Your task to perform on an android device: turn off sleep mode Image 0: 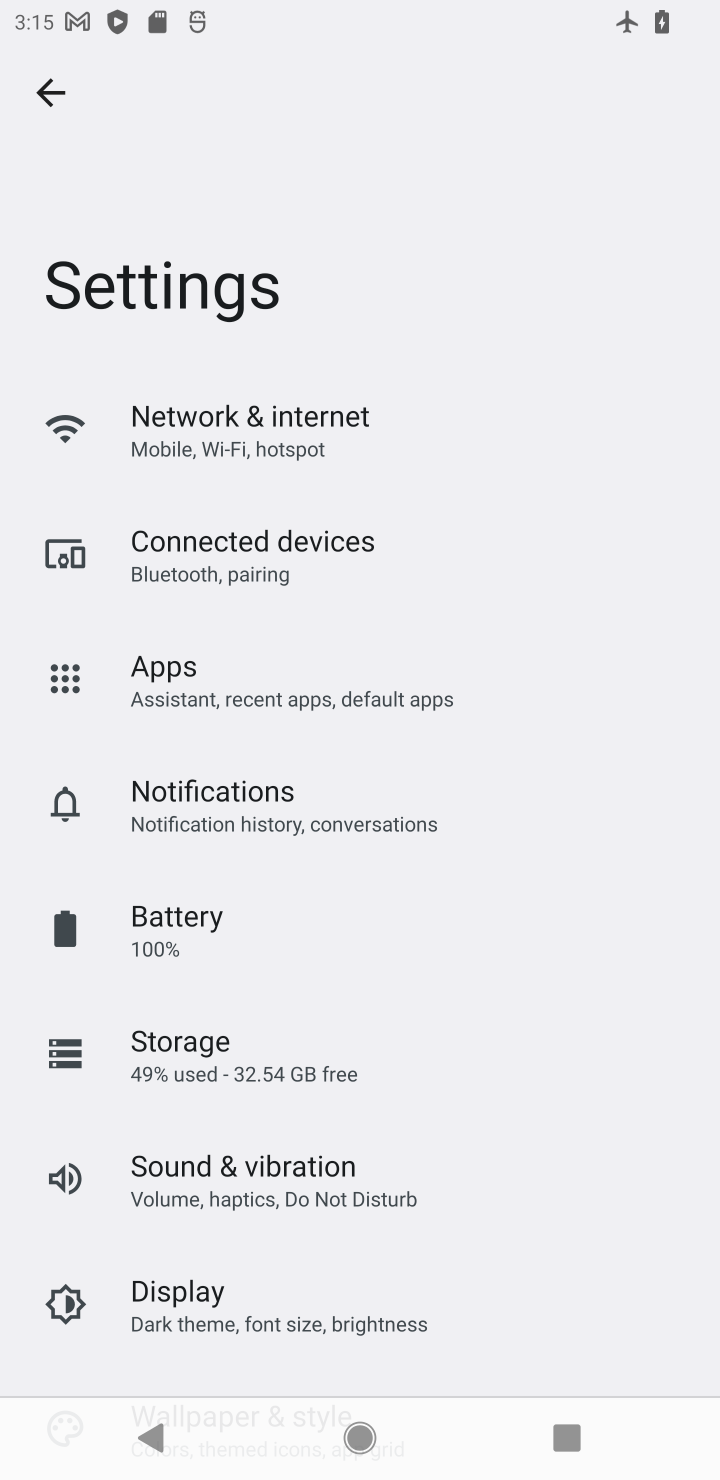
Step 0: drag from (486, 1184) to (634, 226)
Your task to perform on an android device: turn off sleep mode Image 1: 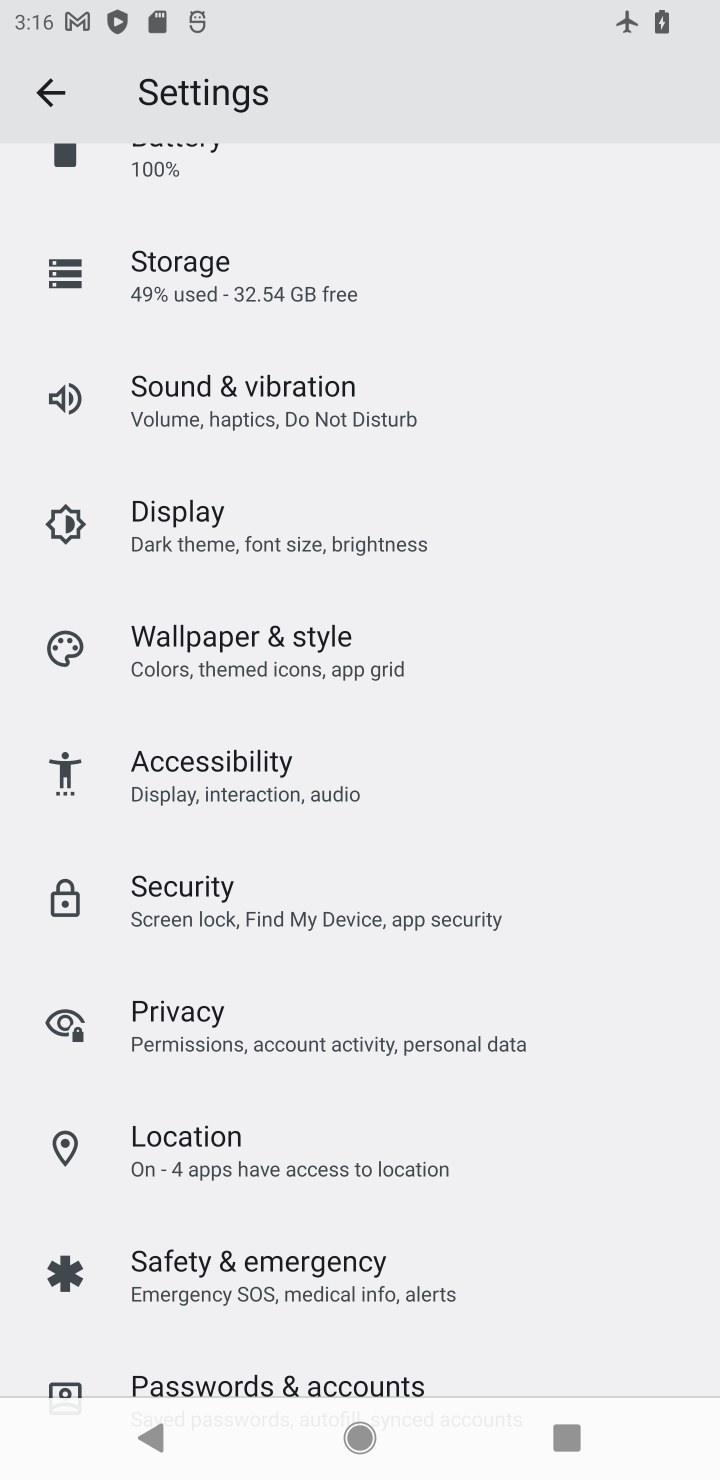
Step 1: click (435, 392)
Your task to perform on an android device: turn off sleep mode Image 2: 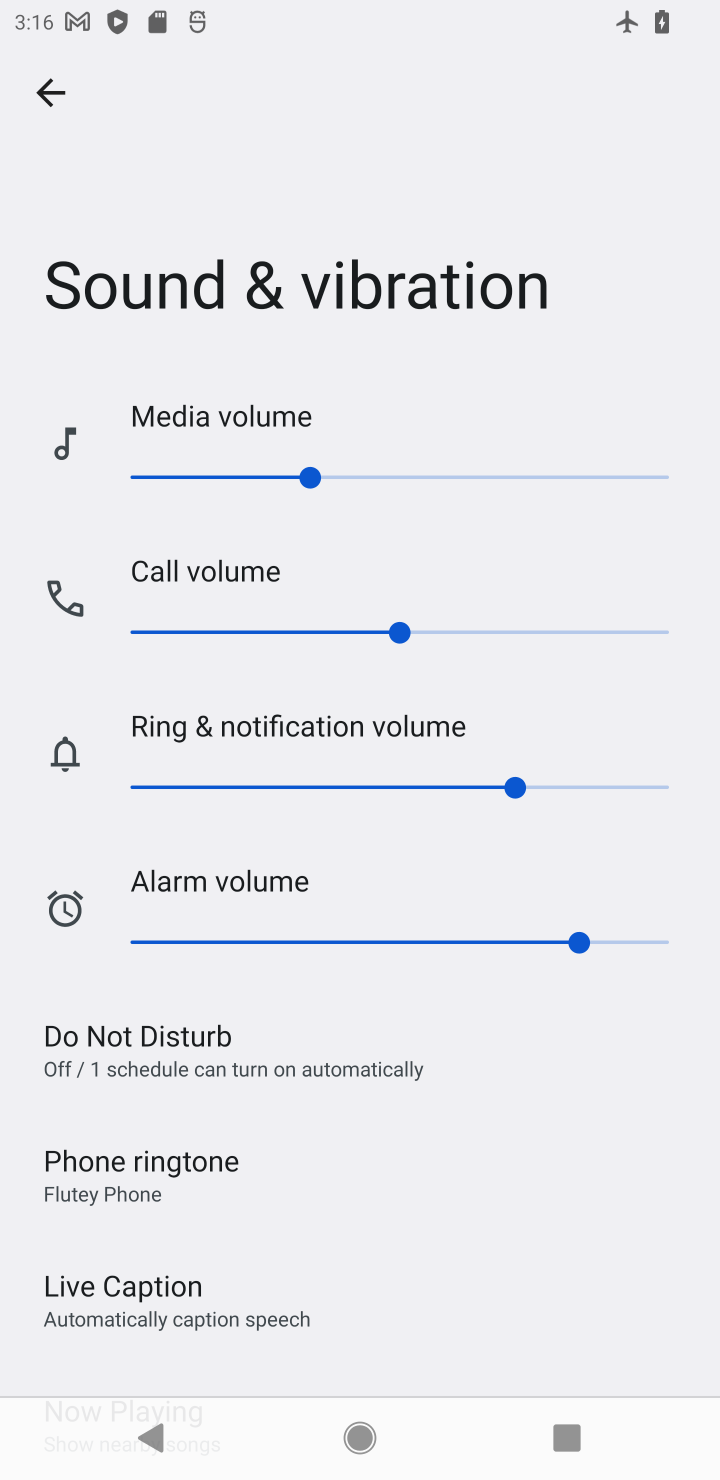
Step 2: task complete